Your task to perform on an android device: turn on translation in the chrome app Image 0: 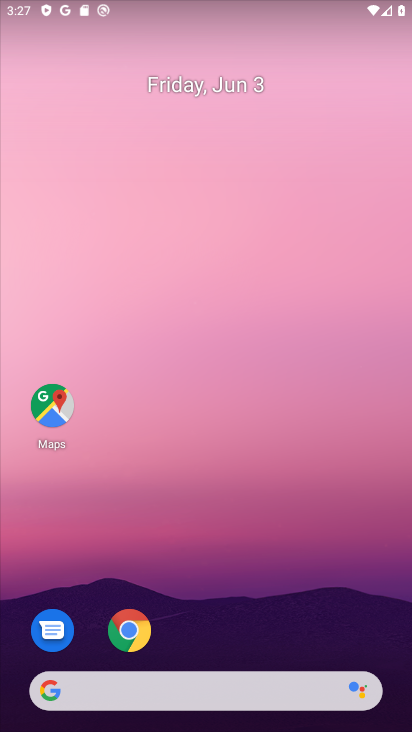
Step 0: drag from (244, 637) to (244, 159)
Your task to perform on an android device: turn on translation in the chrome app Image 1: 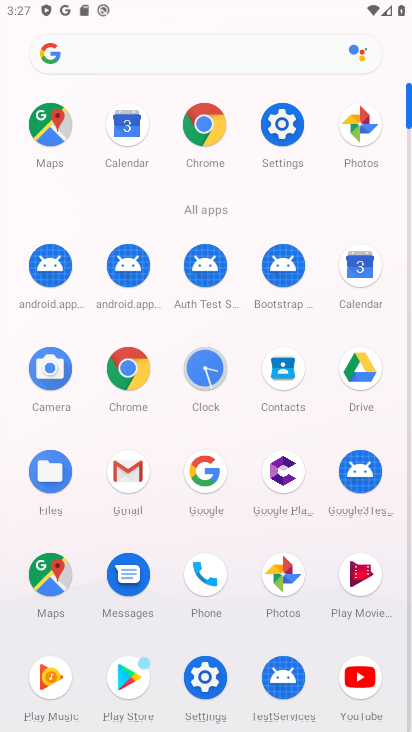
Step 1: click (193, 129)
Your task to perform on an android device: turn on translation in the chrome app Image 2: 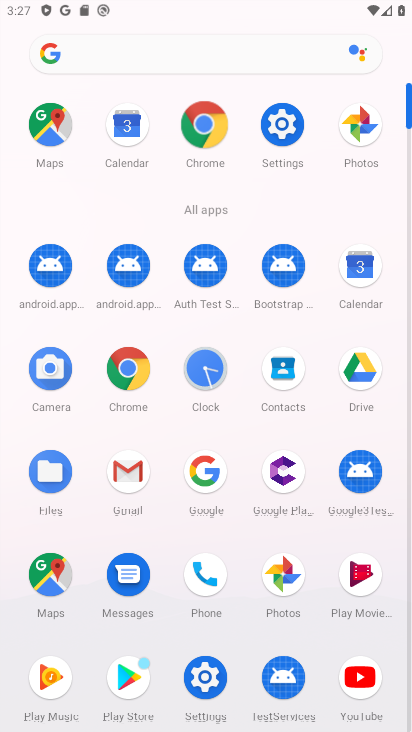
Step 2: click (194, 128)
Your task to perform on an android device: turn on translation in the chrome app Image 3: 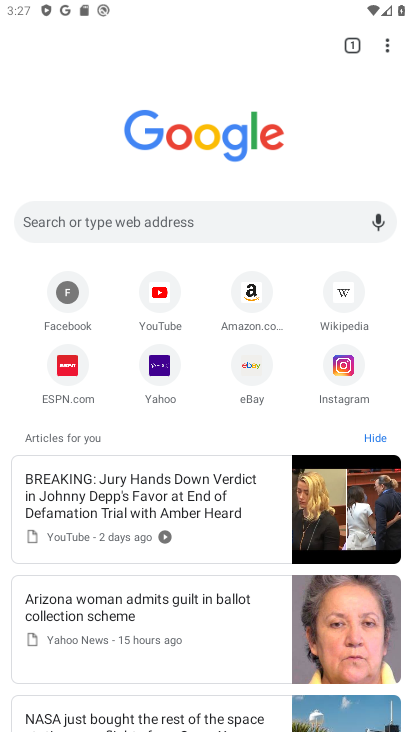
Step 3: click (194, 128)
Your task to perform on an android device: turn on translation in the chrome app Image 4: 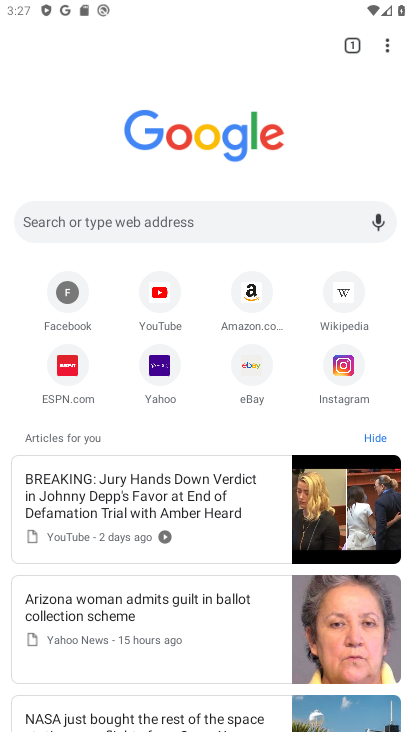
Step 4: click (381, 47)
Your task to perform on an android device: turn on translation in the chrome app Image 5: 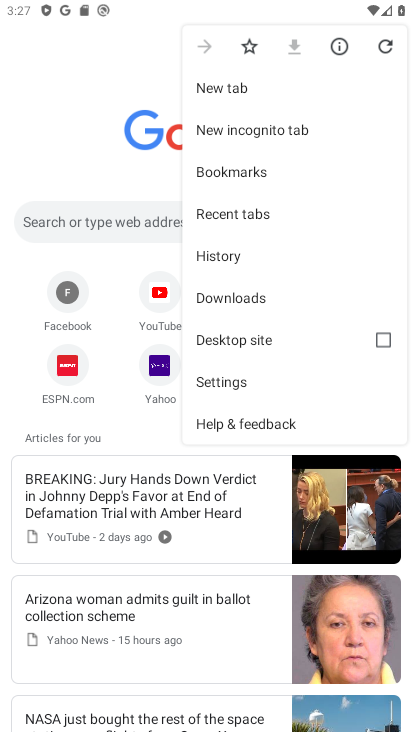
Step 5: click (227, 377)
Your task to perform on an android device: turn on translation in the chrome app Image 6: 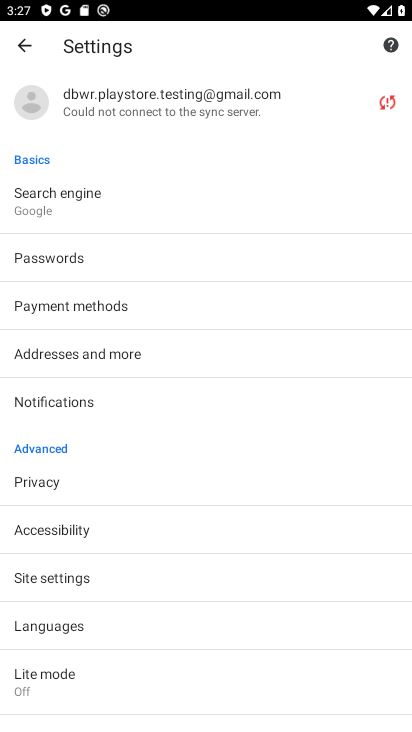
Step 6: click (41, 624)
Your task to perform on an android device: turn on translation in the chrome app Image 7: 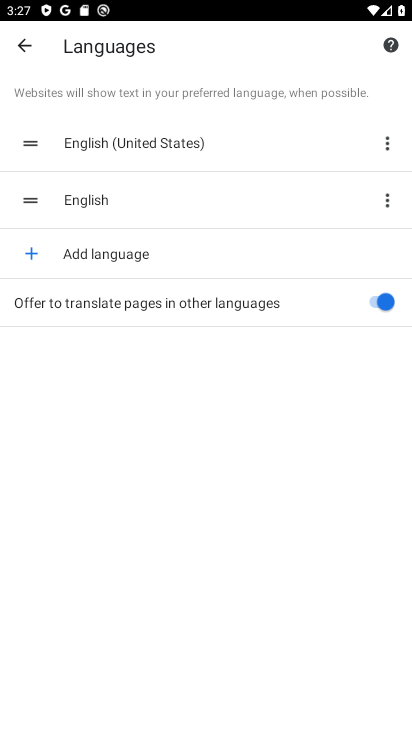
Step 7: click (375, 299)
Your task to perform on an android device: turn on translation in the chrome app Image 8: 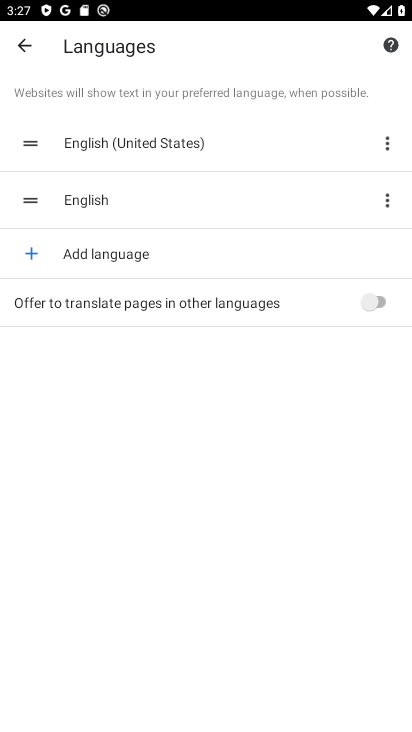
Step 8: click (374, 295)
Your task to perform on an android device: turn on translation in the chrome app Image 9: 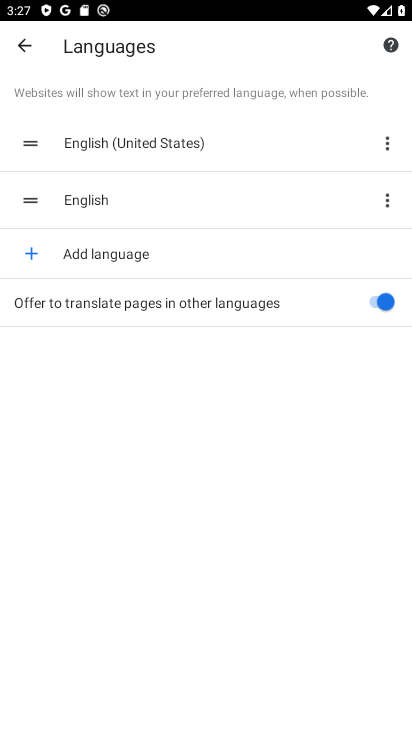
Step 9: task complete